Your task to perform on an android device: Go to Google Image 0: 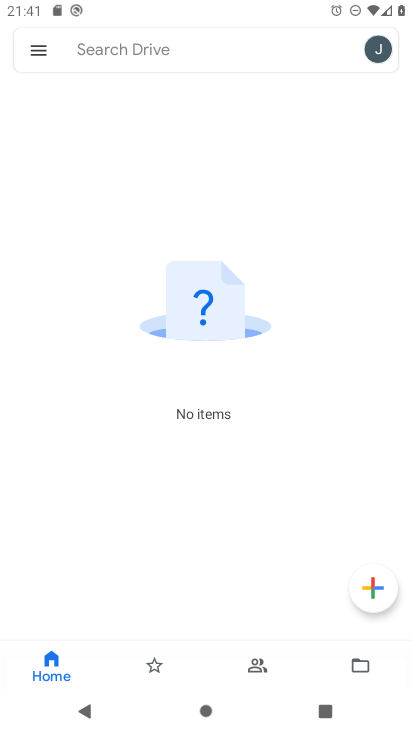
Step 0: press home button
Your task to perform on an android device: Go to Google Image 1: 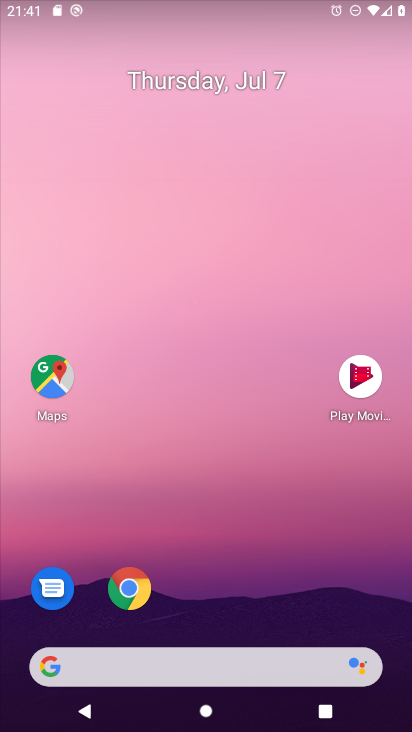
Step 1: drag from (207, 598) to (207, 191)
Your task to perform on an android device: Go to Google Image 2: 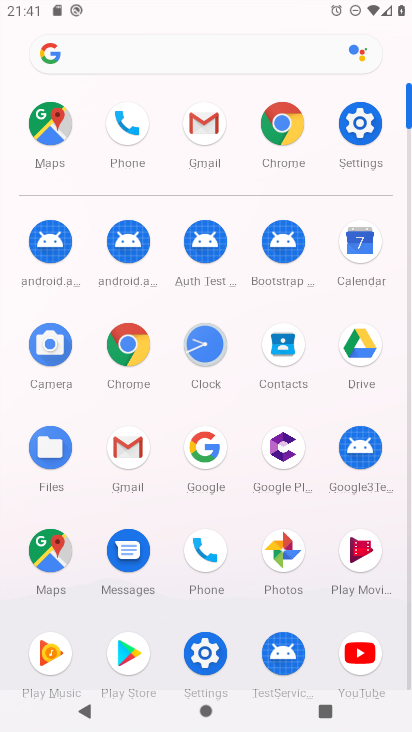
Step 2: click (210, 444)
Your task to perform on an android device: Go to Google Image 3: 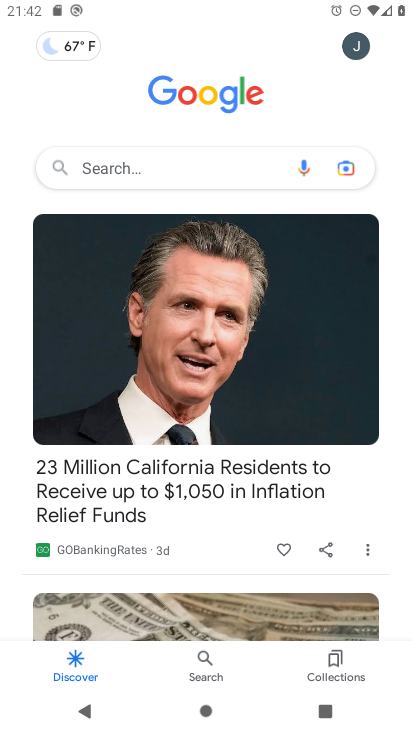
Step 3: task complete